Your task to perform on an android device: When is my next appointment? Image 0: 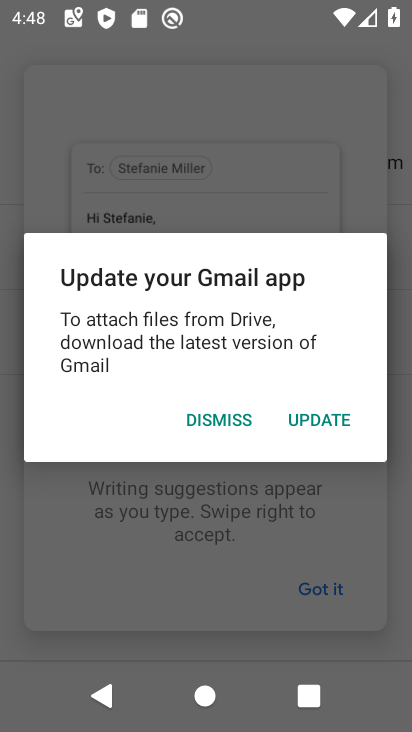
Step 0: press home button
Your task to perform on an android device: When is my next appointment? Image 1: 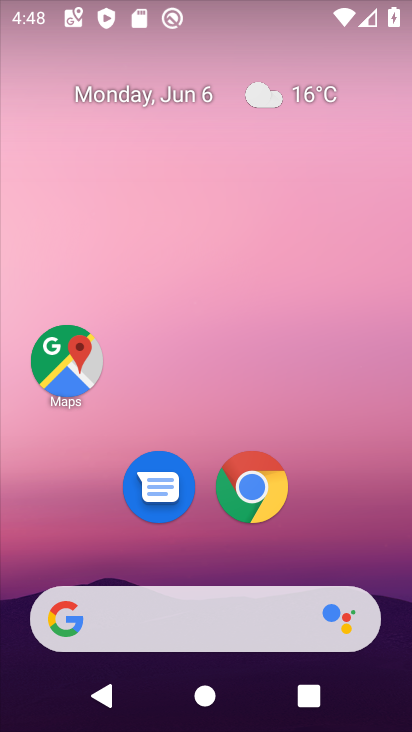
Step 1: drag from (330, 529) to (358, 47)
Your task to perform on an android device: When is my next appointment? Image 2: 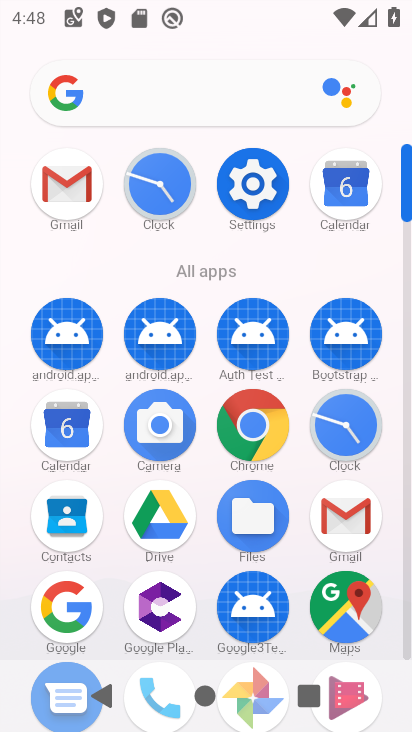
Step 2: click (354, 188)
Your task to perform on an android device: When is my next appointment? Image 3: 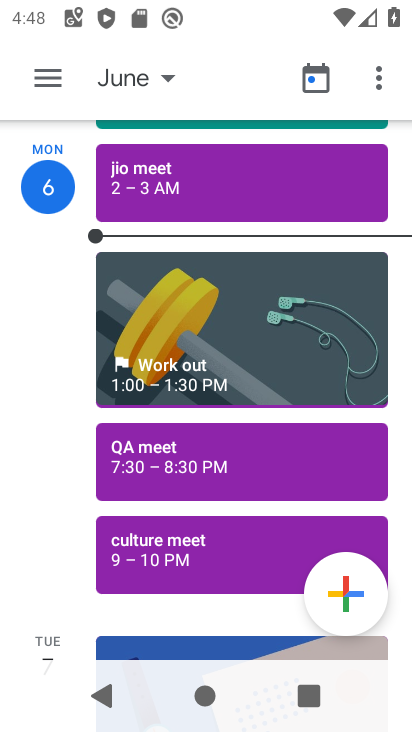
Step 3: task complete